Your task to perform on an android device: open device folders in google photos Image 0: 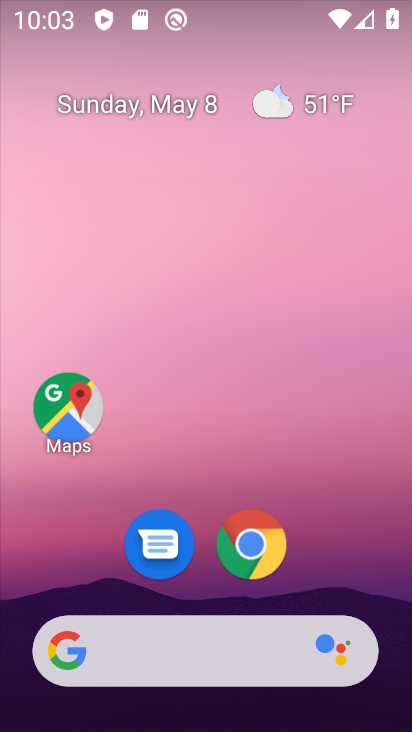
Step 0: drag from (328, 585) to (296, 76)
Your task to perform on an android device: open device folders in google photos Image 1: 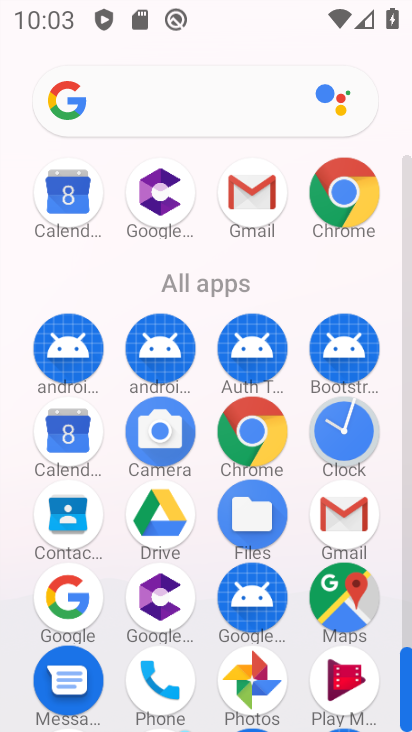
Step 1: click (261, 688)
Your task to perform on an android device: open device folders in google photos Image 2: 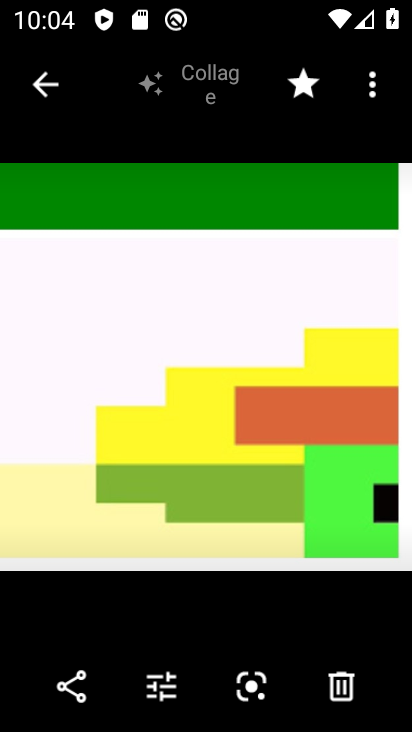
Step 2: click (56, 106)
Your task to perform on an android device: open device folders in google photos Image 3: 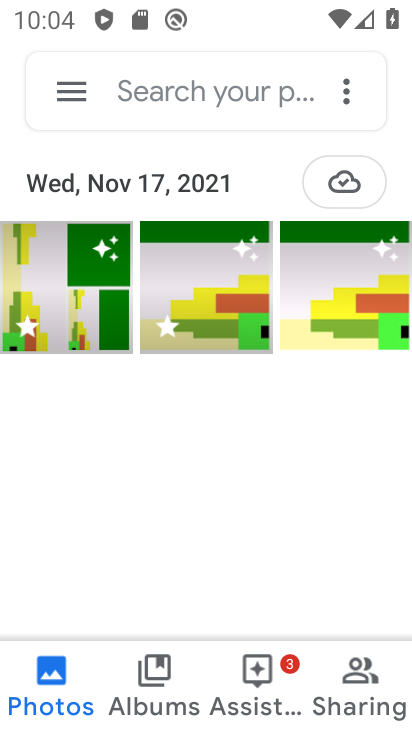
Step 3: click (67, 89)
Your task to perform on an android device: open device folders in google photos Image 4: 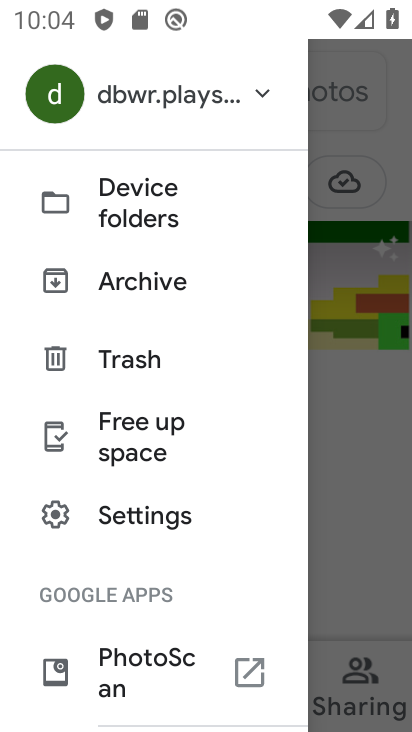
Step 4: click (117, 209)
Your task to perform on an android device: open device folders in google photos Image 5: 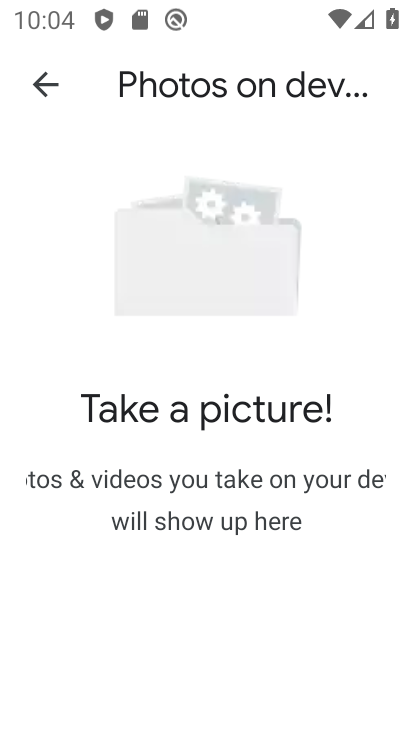
Step 5: task complete